Your task to perform on an android device: Open calendar and show me the second week of next month Image 0: 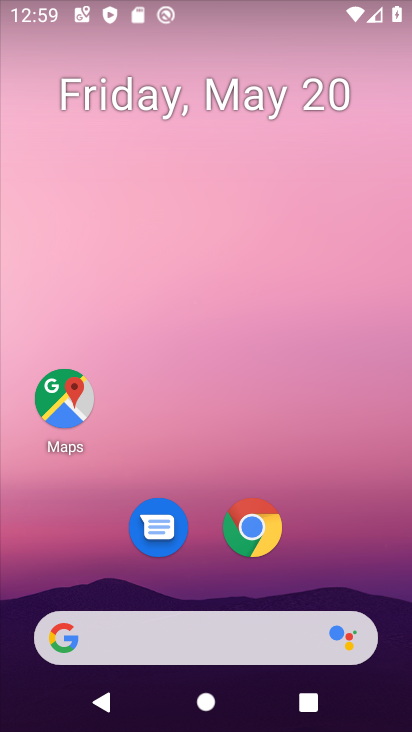
Step 0: drag from (278, 432) to (255, 26)
Your task to perform on an android device: Open calendar and show me the second week of next month Image 1: 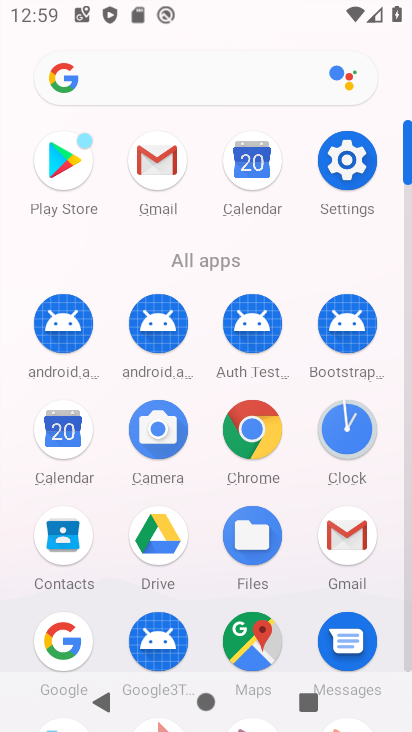
Step 1: click (260, 153)
Your task to perform on an android device: Open calendar and show me the second week of next month Image 2: 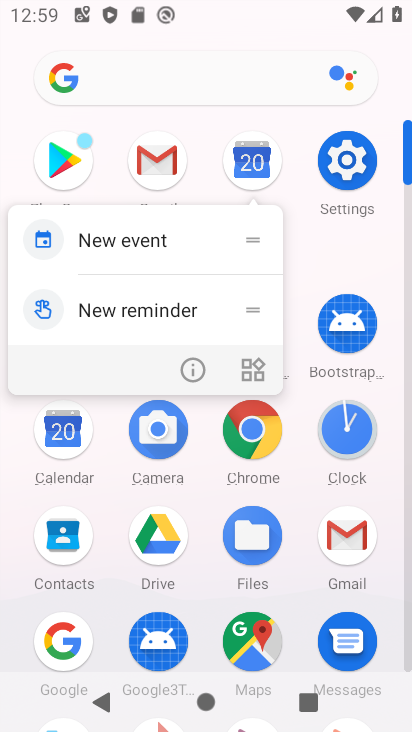
Step 2: click (254, 160)
Your task to perform on an android device: Open calendar and show me the second week of next month Image 3: 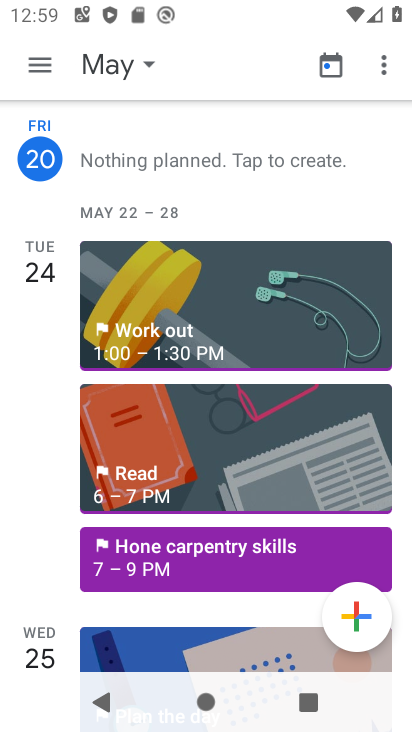
Step 3: click (44, 67)
Your task to perform on an android device: Open calendar and show me the second week of next month Image 4: 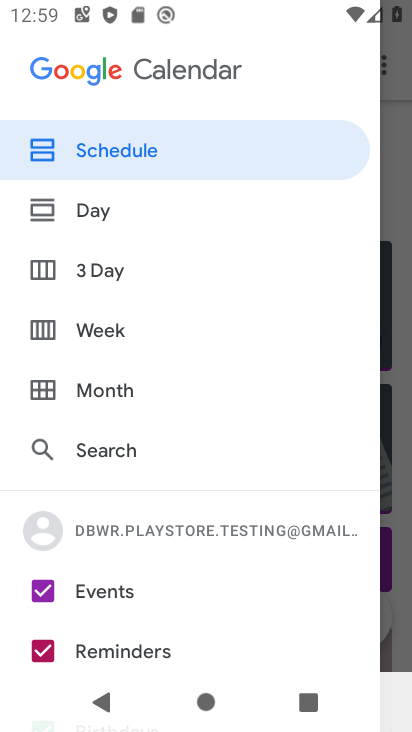
Step 4: click (46, 329)
Your task to perform on an android device: Open calendar and show me the second week of next month Image 5: 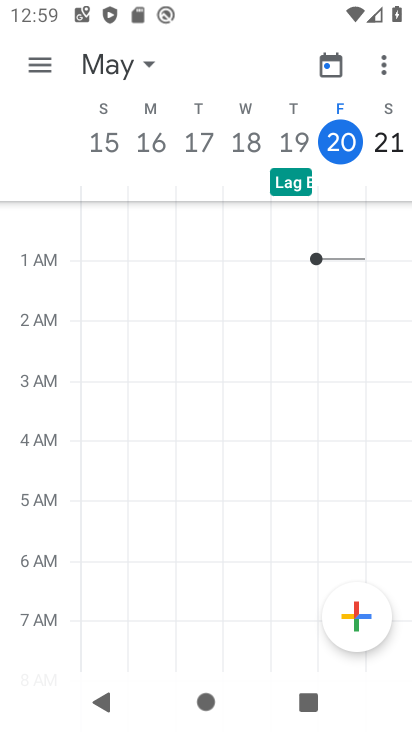
Step 5: task complete